Your task to perform on an android device: What is the speed of a skateboard? Image 0: 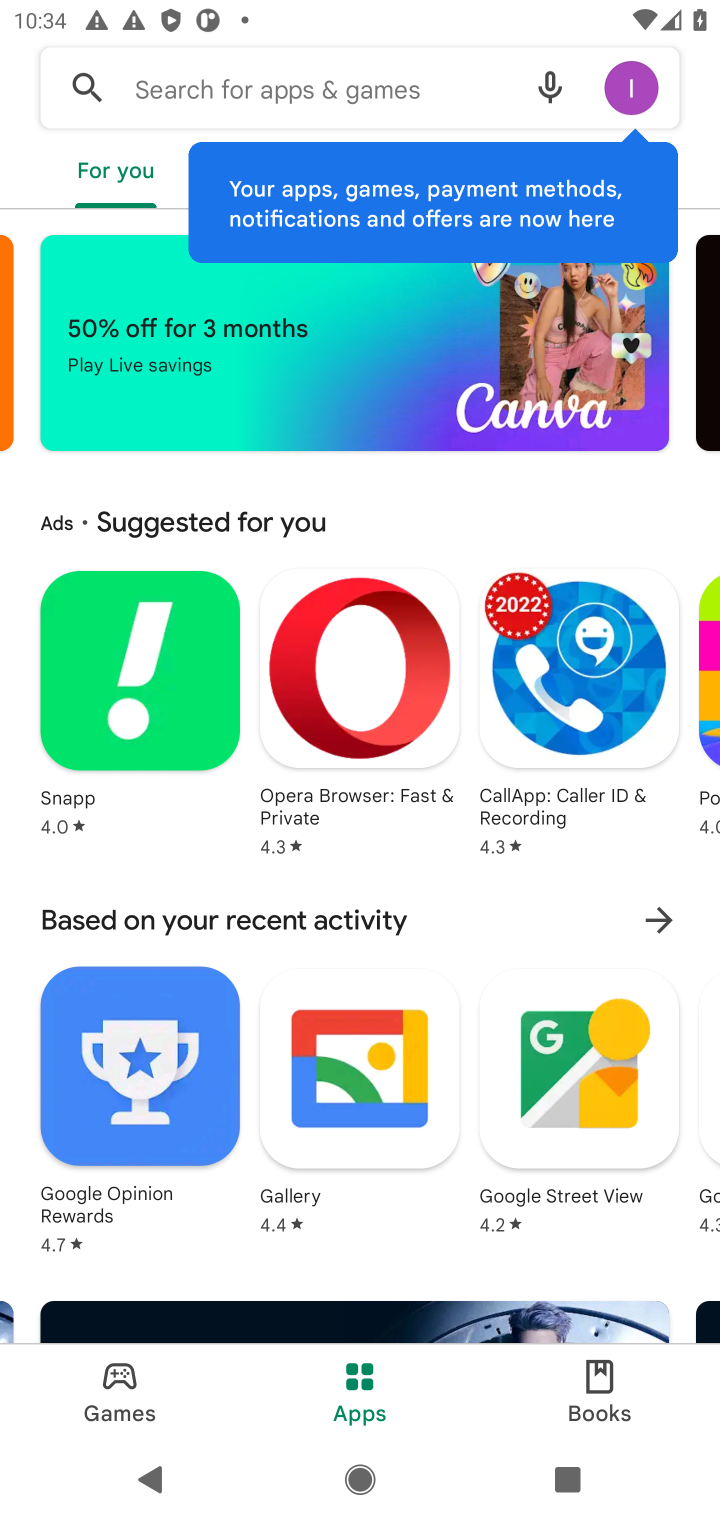
Step 0: press home button
Your task to perform on an android device: What is the speed of a skateboard? Image 1: 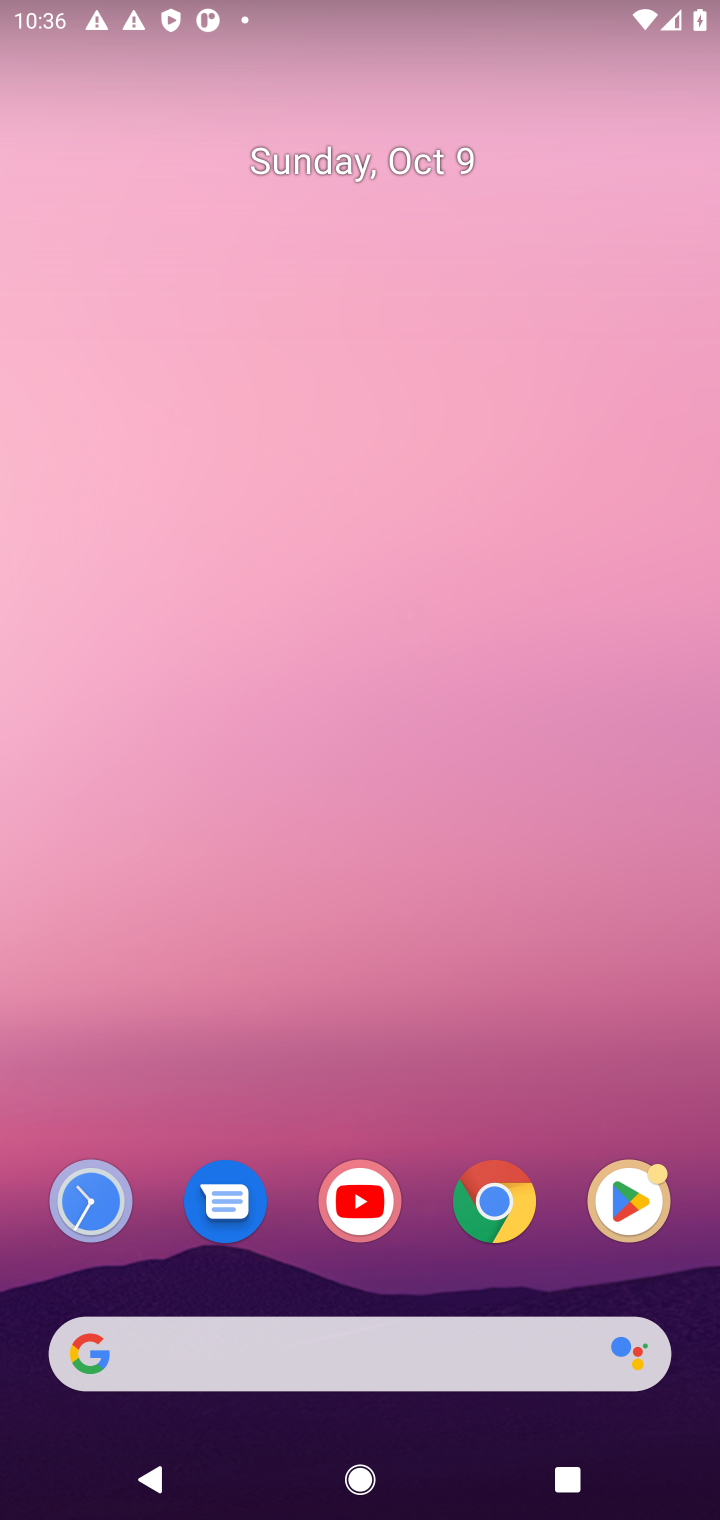
Step 1: click (145, 1341)
Your task to perform on an android device: What is the speed of a skateboard? Image 2: 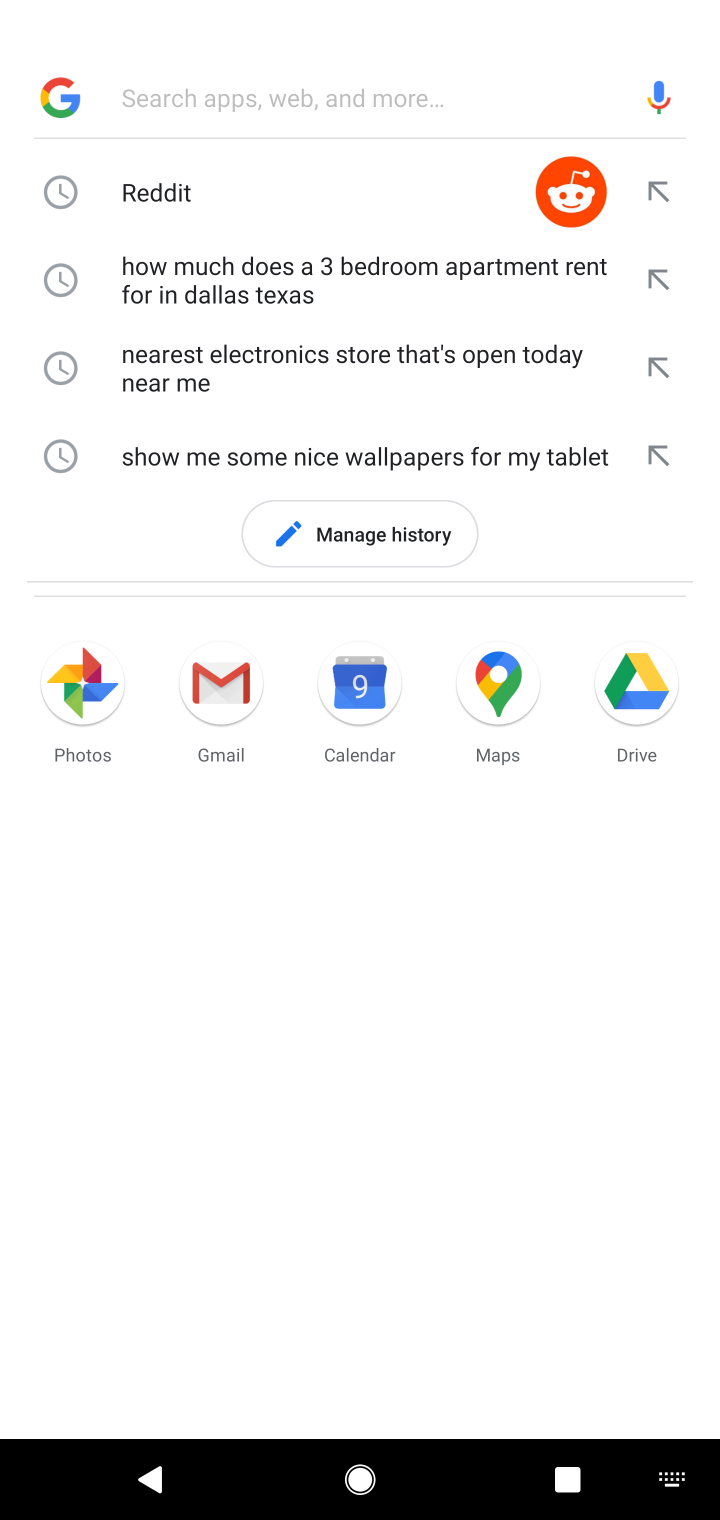
Step 2: click (238, 81)
Your task to perform on an android device: What is the speed of a skateboard? Image 3: 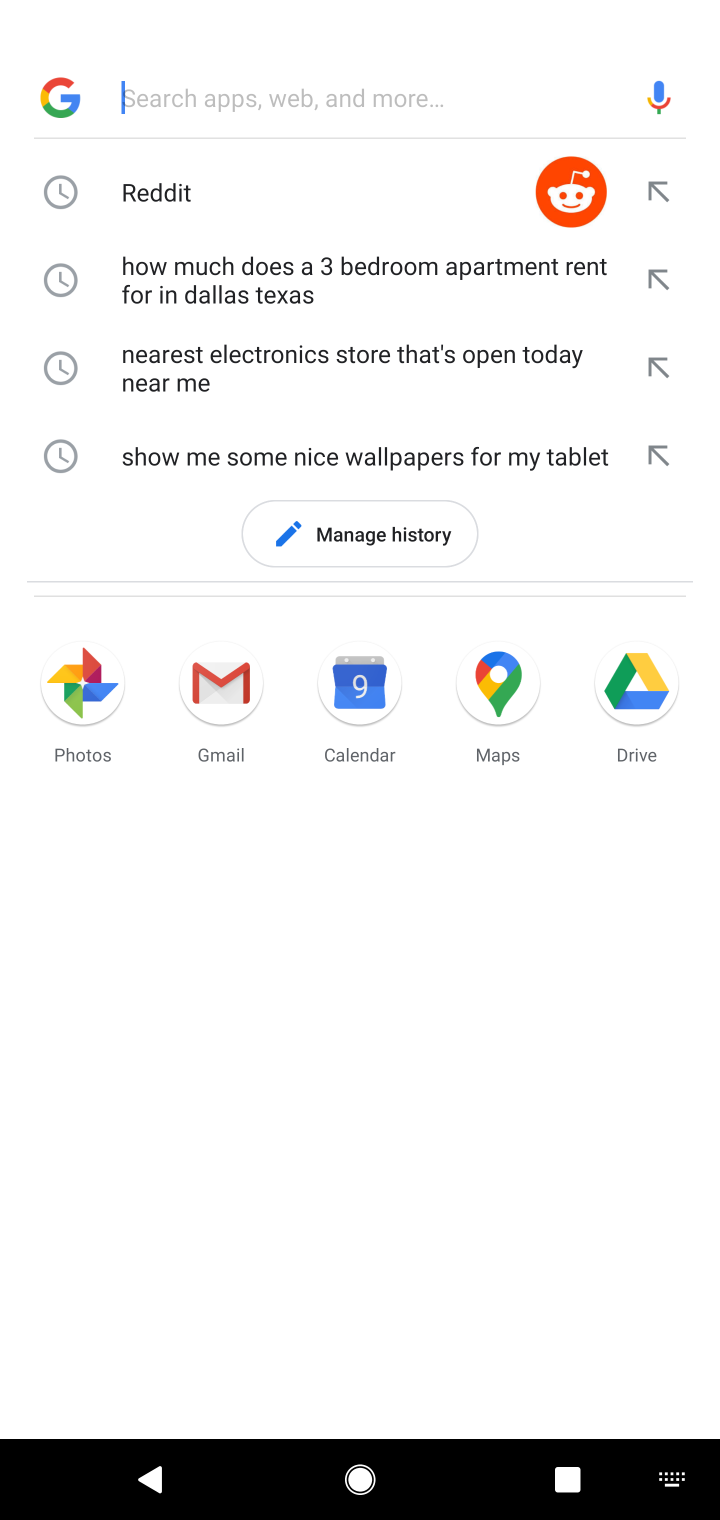
Step 3: type "speed of a skateboard"
Your task to perform on an android device: What is the speed of a skateboard? Image 4: 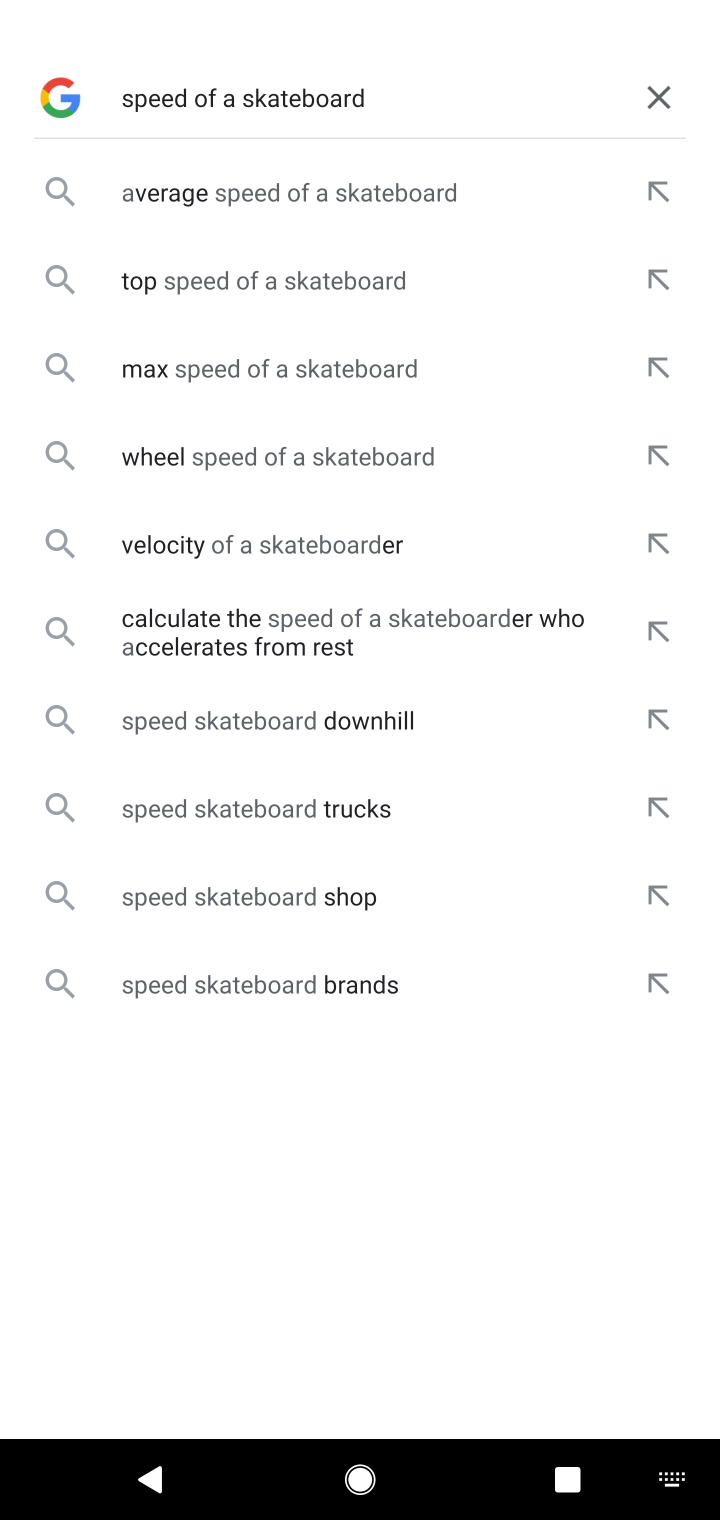
Step 4: click (383, 195)
Your task to perform on an android device: What is the speed of a skateboard? Image 5: 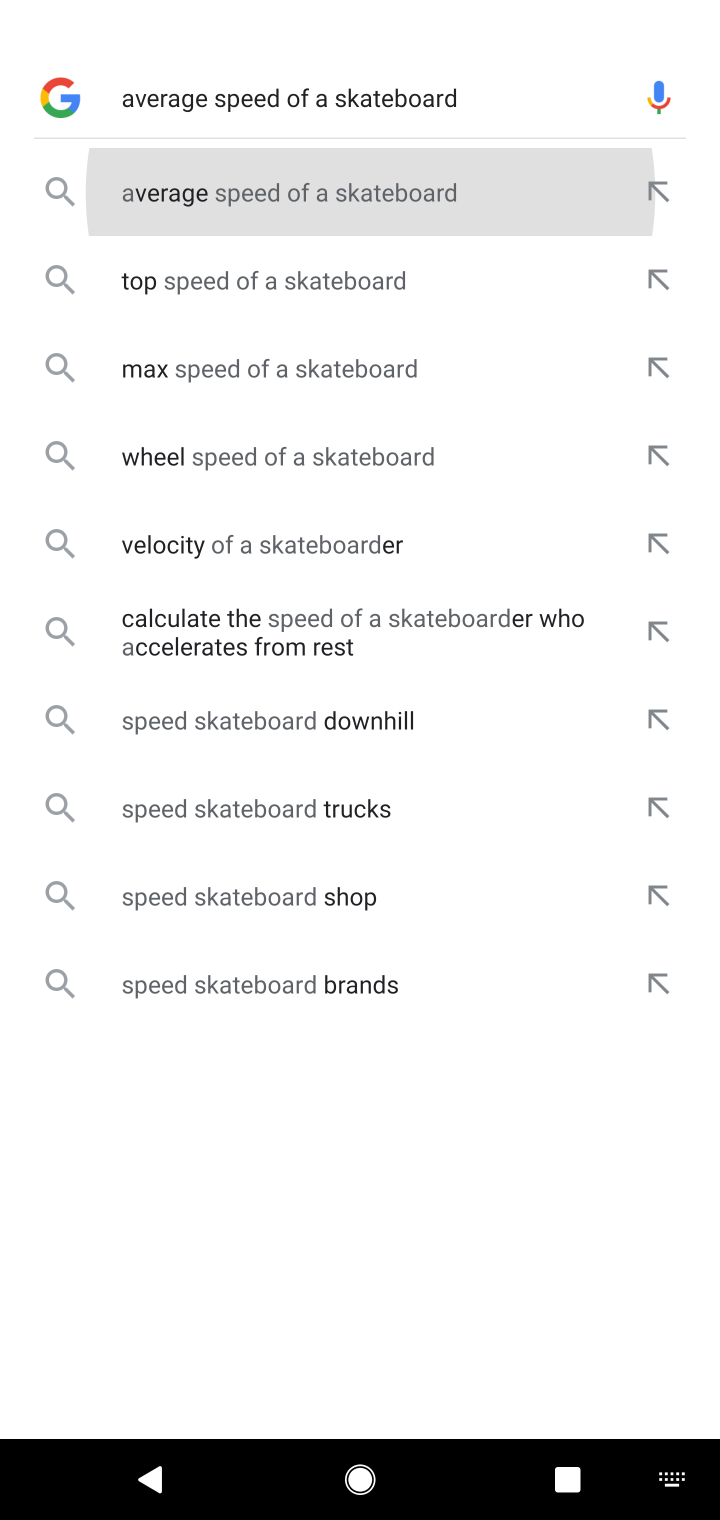
Step 5: task complete